Your task to perform on an android device: allow notifications from all sites in the chrome app Image 0: 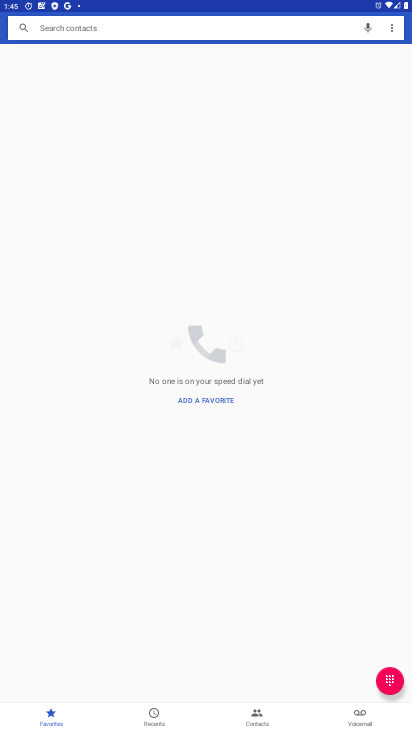
Step 0: press home button
Your task to perform on an android device: allow notifications from all sites in the chrome app Image 1: 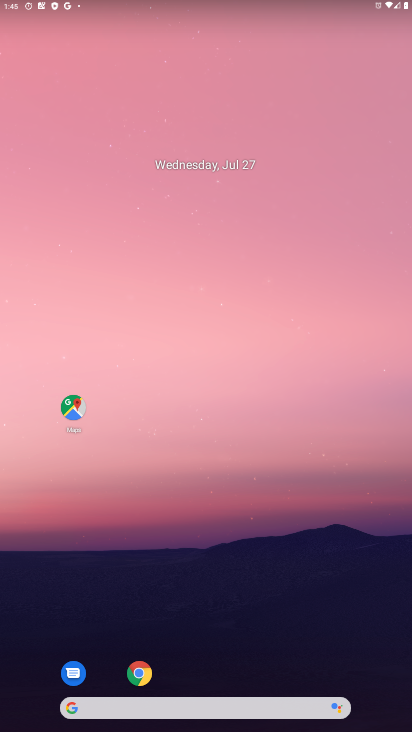
Step 1: click (144, 674)
Your task to perform on an android device: allow notifications from all sites in the chrome app Image 2: 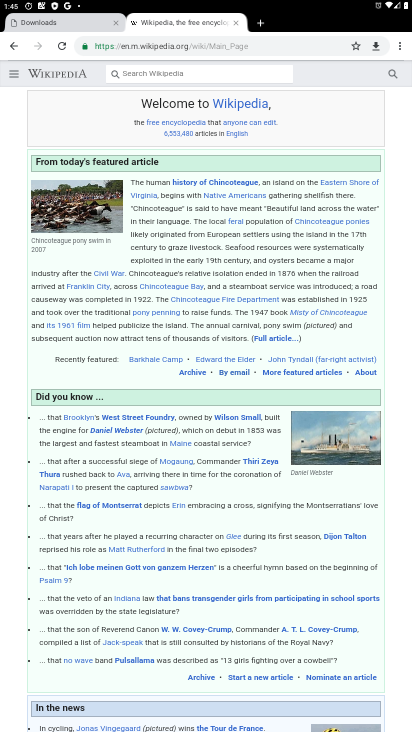
Step 2: drag from (403, 46) to (312, 311)
Your task to perform on an android device: allow notifications from all sites in the chrome app Image 3: 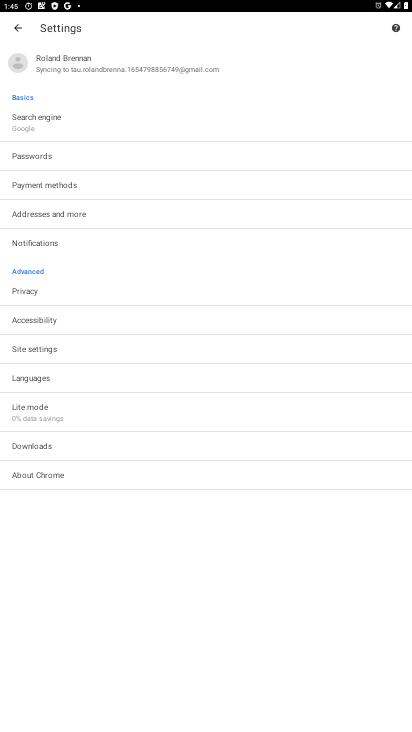
Step 3: click (22, 346)
Your task to perform on an android device: allow notifications from all sites in the chrome app Image 4: 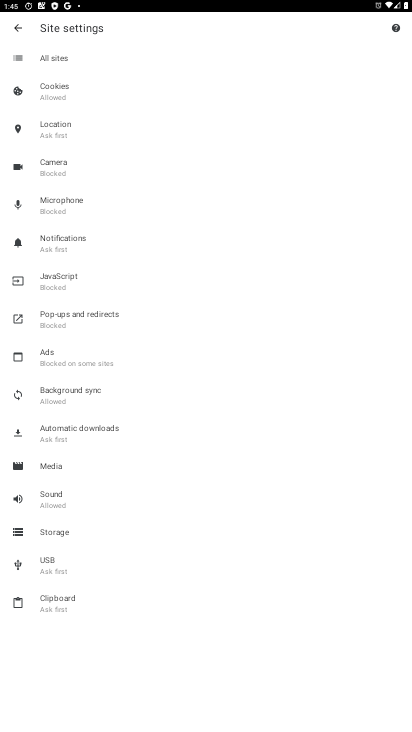
Step 4: click (74, 256)
Your task to perform on an android device: allow notifications from all sites in the chrome app Image 5: 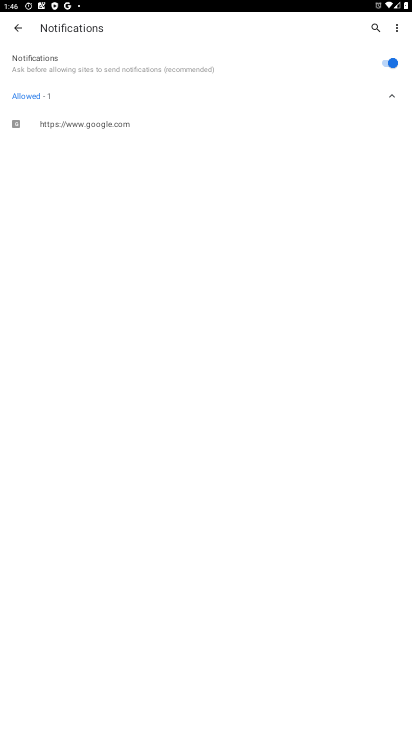
Step 5: task complete